Your task to perform on an android device: View the shopping cart on costco.com. Search for razer nari on costco.com, select the first entry, add it to the cart, then select checkout. Image 0: 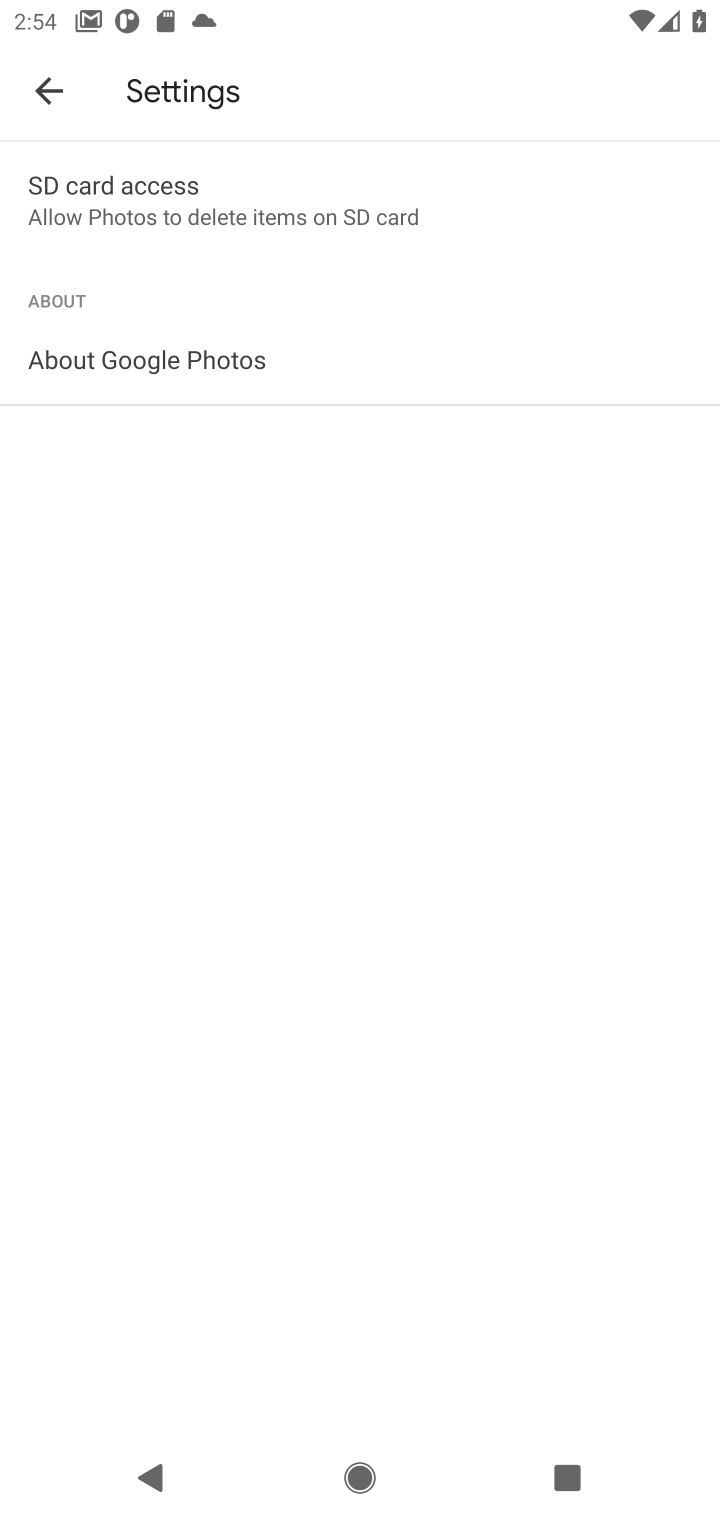
Step 0: press home button
Your task to perform on an android device: View the shopping cart on costco.com. Search for razer nari on costco.com, select the first entry, add it to the cart, then select checkout. Image 1: 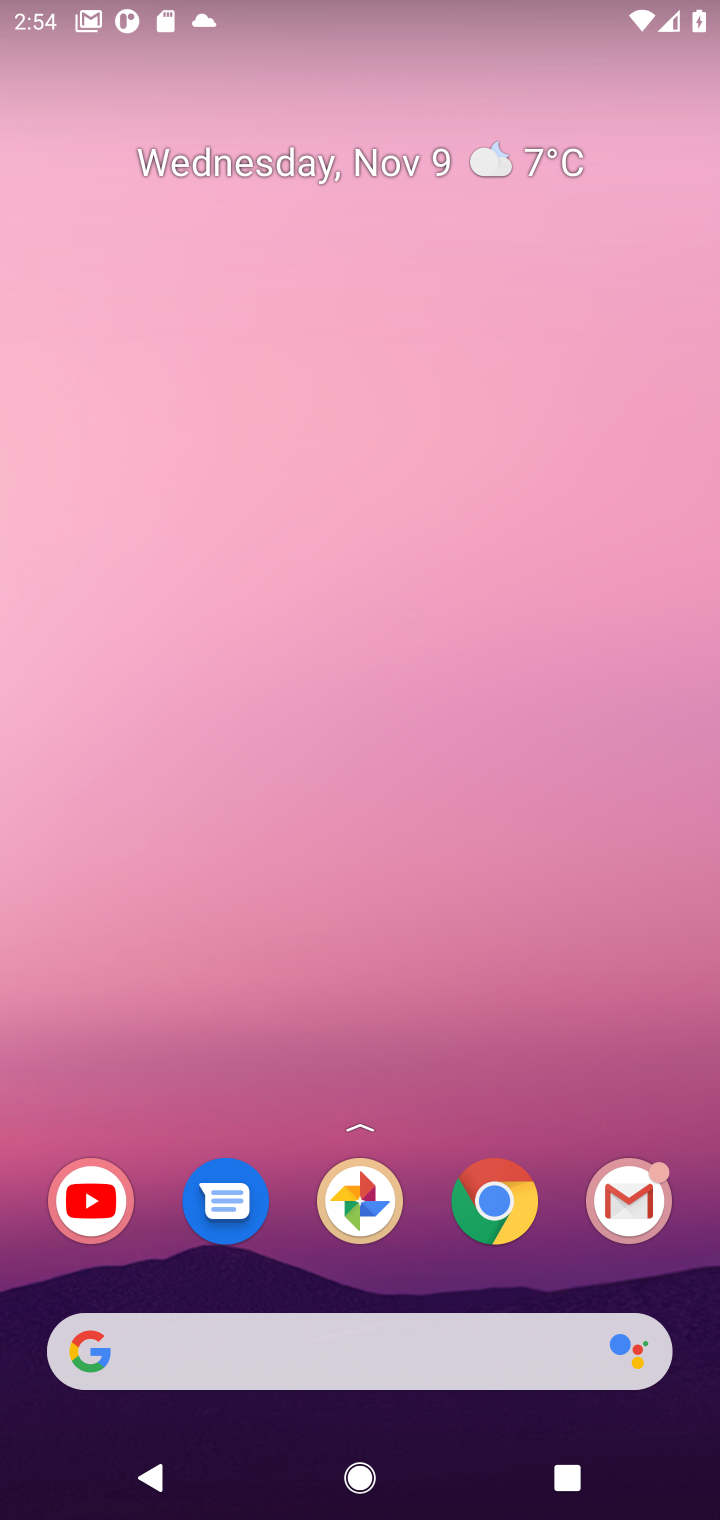
Step 1: click (344, 1354)
Your task to perform on an android device: View the shopping cart on costco.com. Search for razer nari on costco.com, select the first entry, add it to the cart, then select checkout. Image 2: 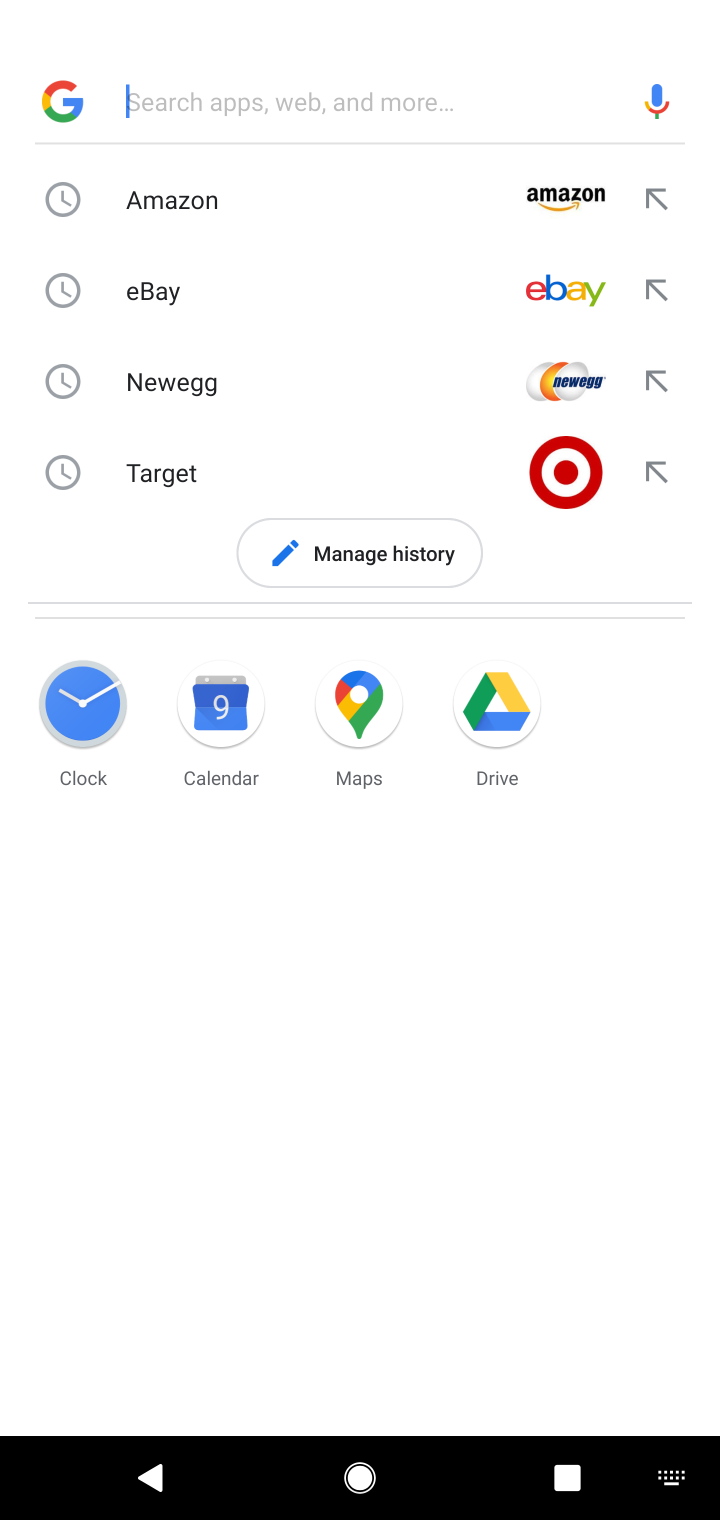
Step 2: type "costco.com"
Your task to perform on an android device: View the shopping cart on costco.com. Search for razer nari on costco.com, select the first entry, add it to the cart, then select checkout. Image 3: 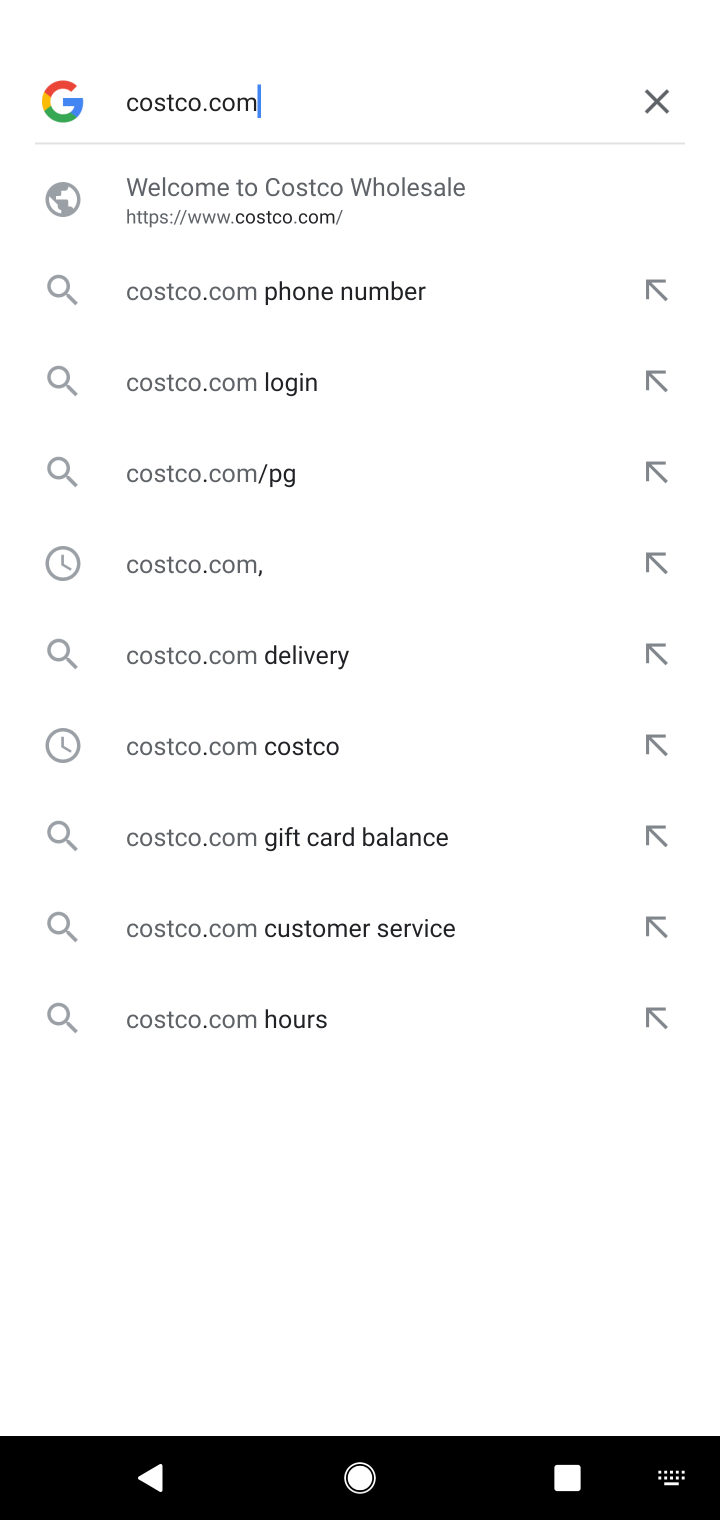
Step 3: click (289, 220)
Your task to perform on an android device: View the shopping cart on costco.com. Search for razer nari on costco.com, select the first entry, add it to the cart, then select checkout. Image 4: 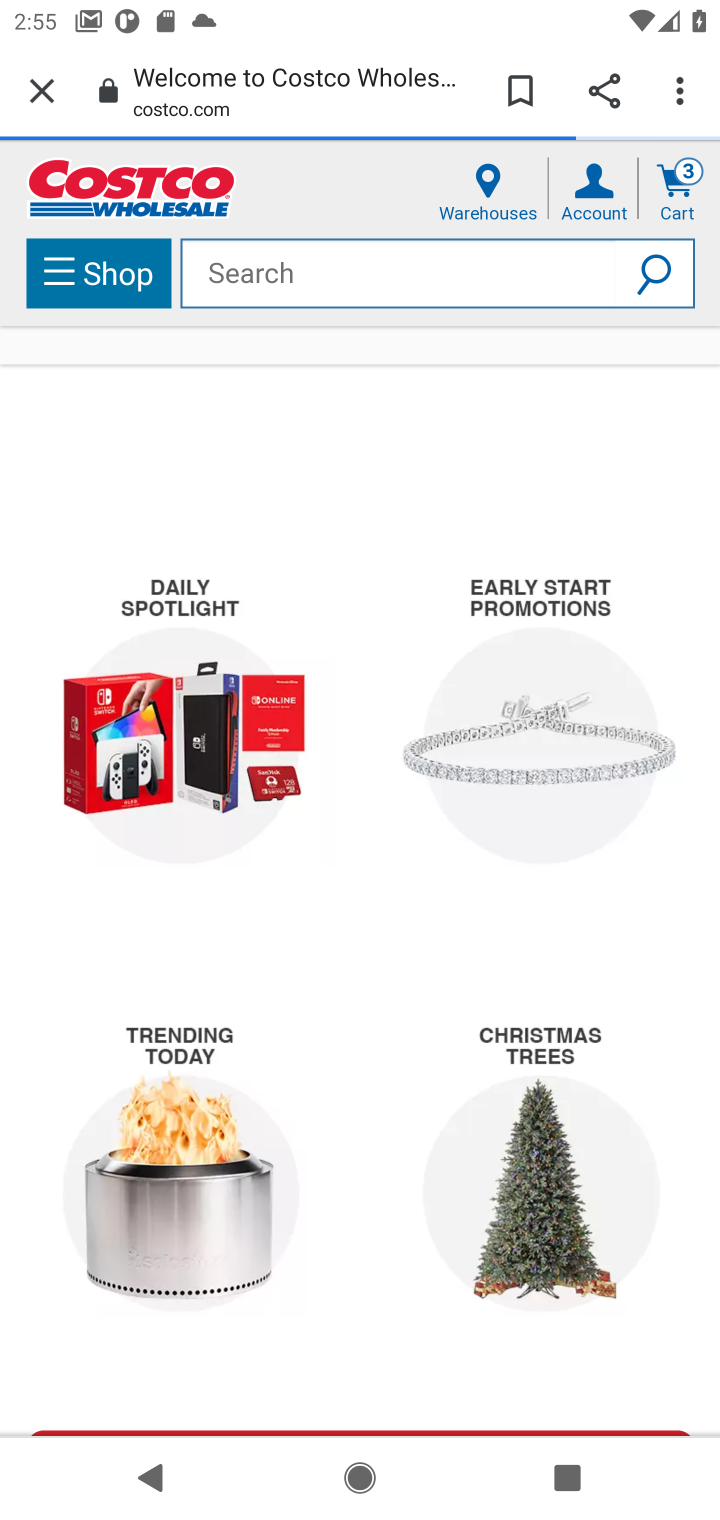
Step 4: click (357, 269)
Your task to perform on an android device: View the shopping cart on costco.com. Search for razer nari on costco.com, select the first entry, add it to the cart, then select checkout. Image 5: 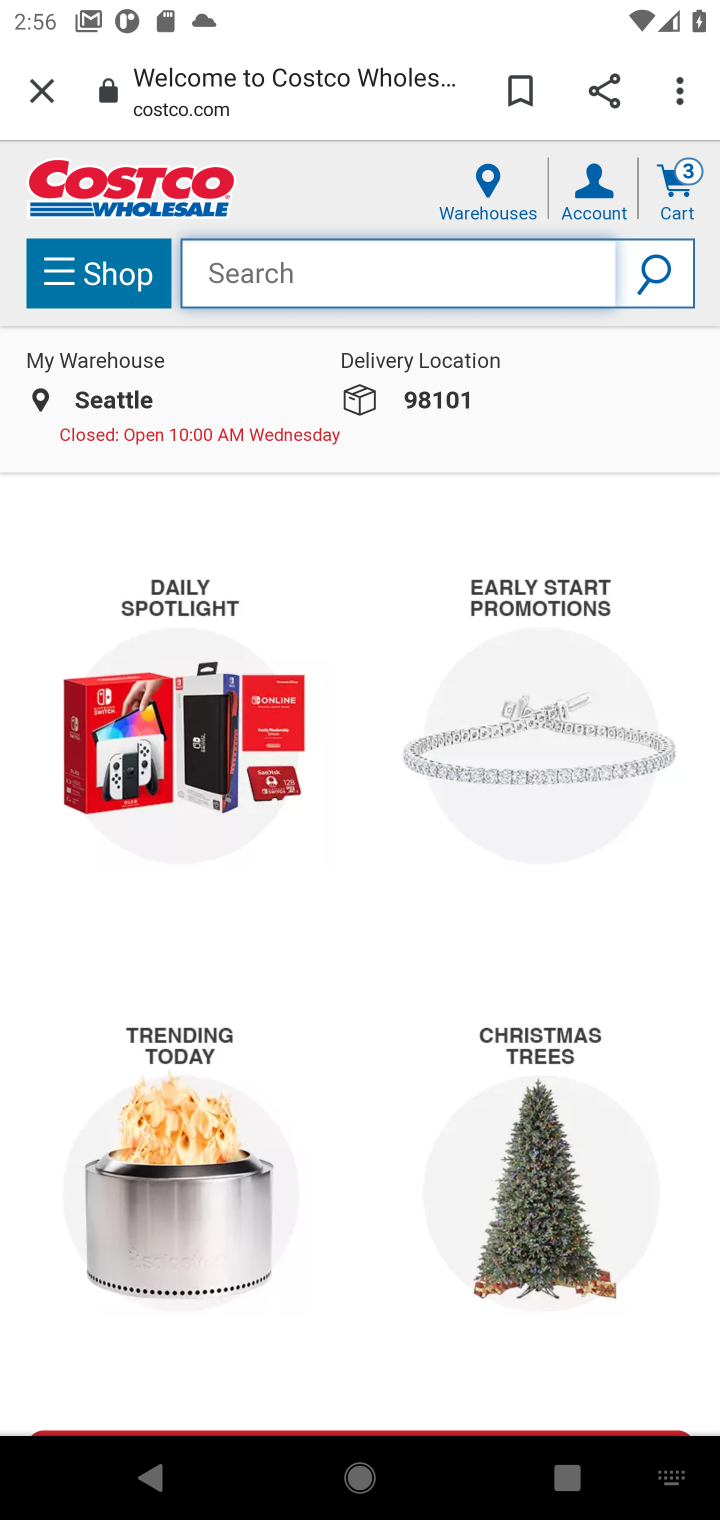
Step 5: type "razer nari "
Your task to perform on an android device: View the shopping cart on costco.com. Search for razer nari on costco.com, select the first entry, add it to the cart, then select checkout. Image 6: 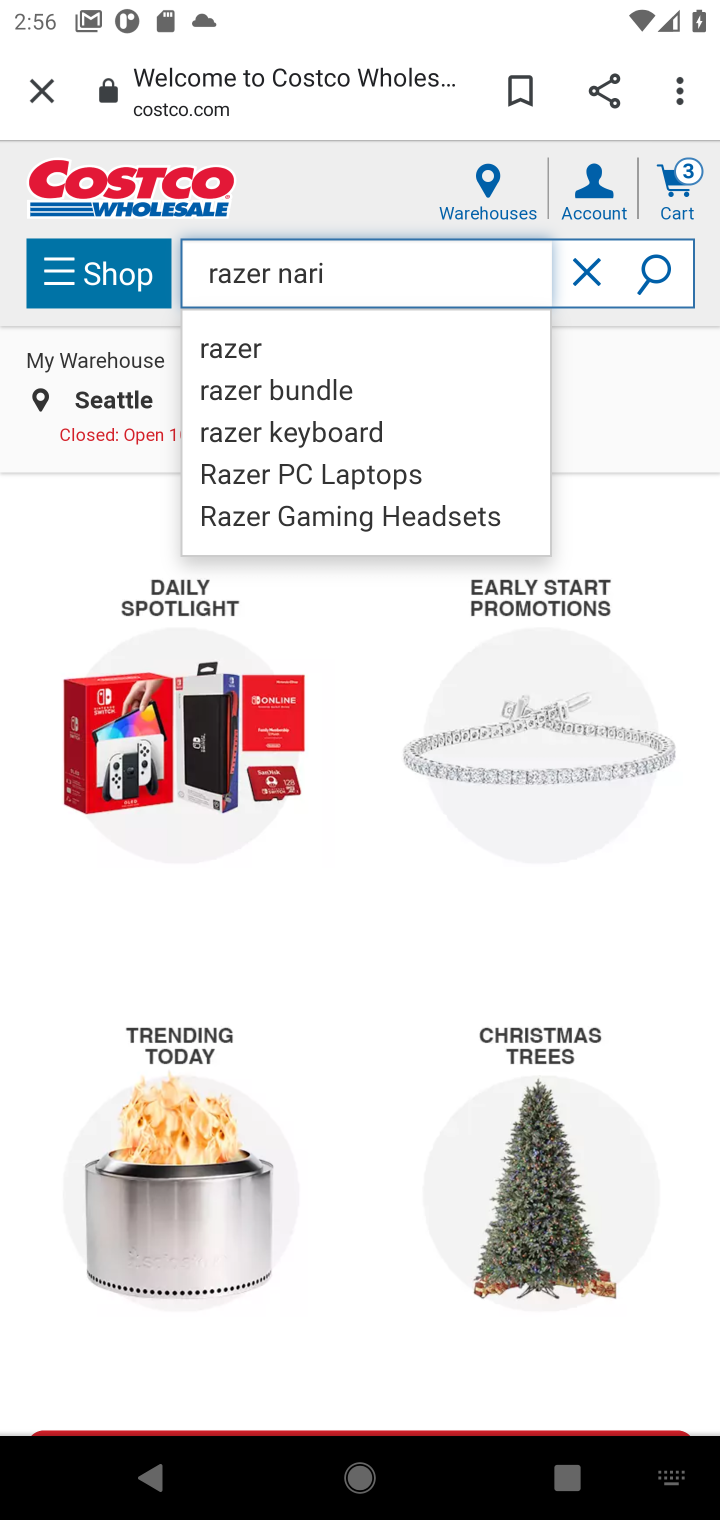
Step 6: click (223, 346)
Your task to perform on an android device: View the shopping cart on costco.com. Search for razer nari on costco.com, select the first entry, add it to the cart, then select checkout. Image 7: 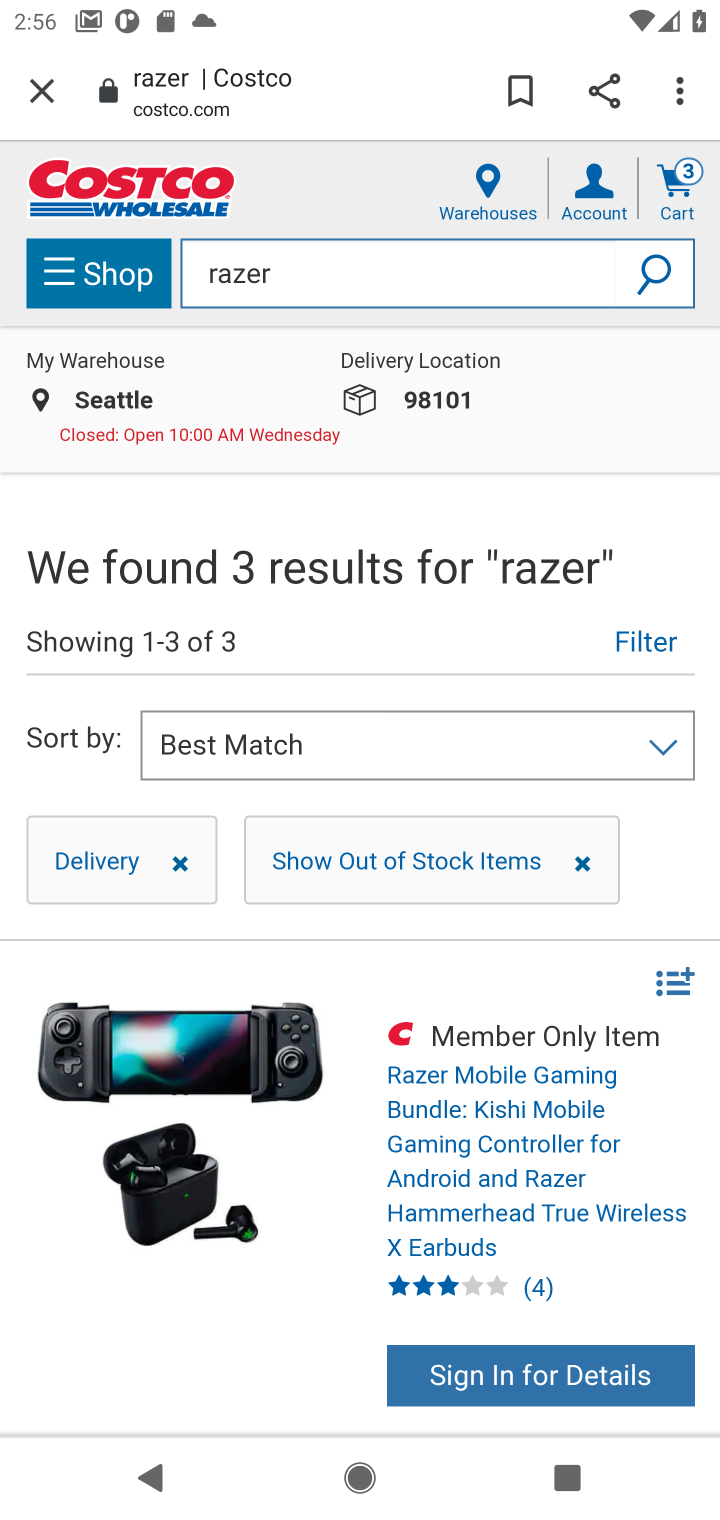
Step 7: drag from (219, 1200) to (255, 913)
Your task to perform on an android device: View the shopping cart on costco.com. Search for razer nari on costco.com, select the first entry, add it to the cart, then select checkout. Image 8: 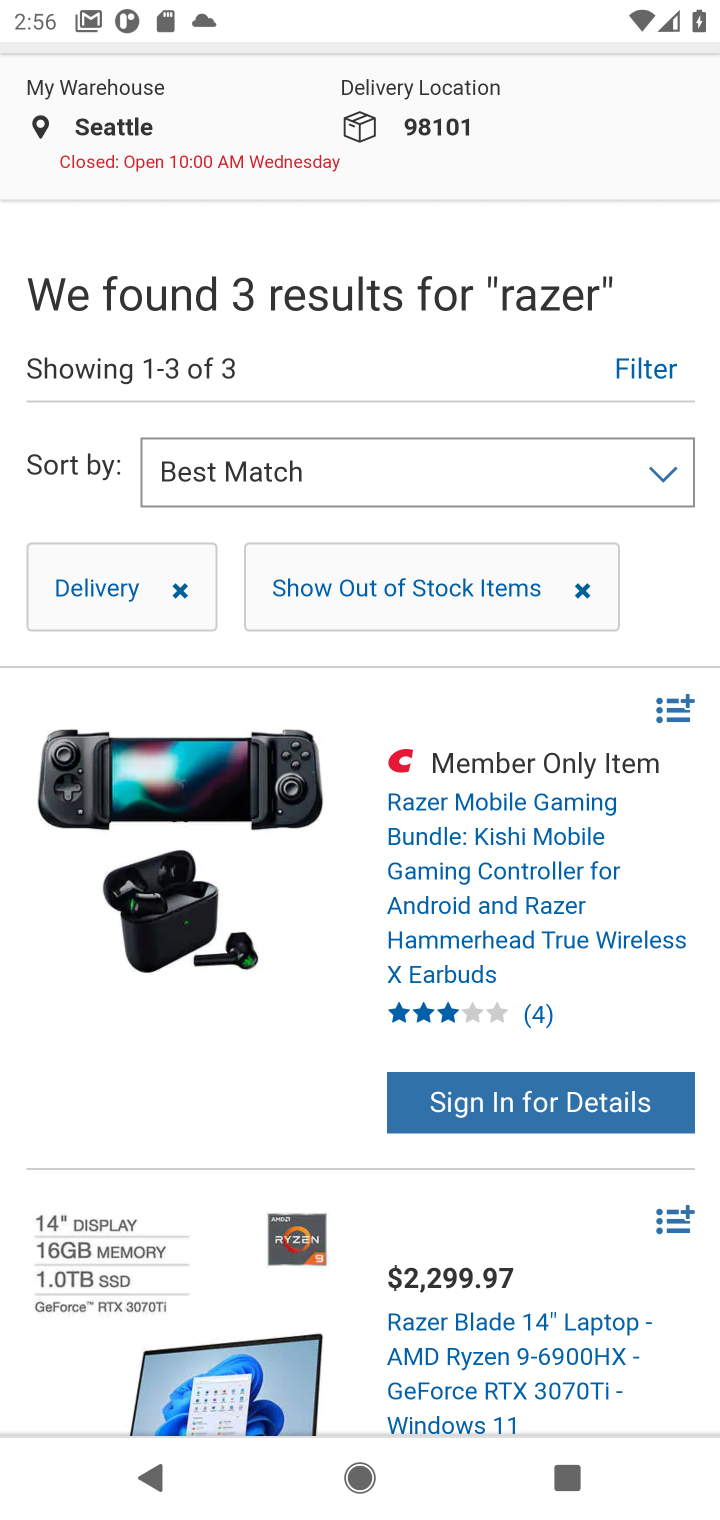
Step 8: drag from (188, 975) to (188, 846)
Your task to perform on an android device: View the shopping cart on costco.com. Search for razer nari on costco.com, select the first entry, add it to the cart, then select checkout. Image 9: 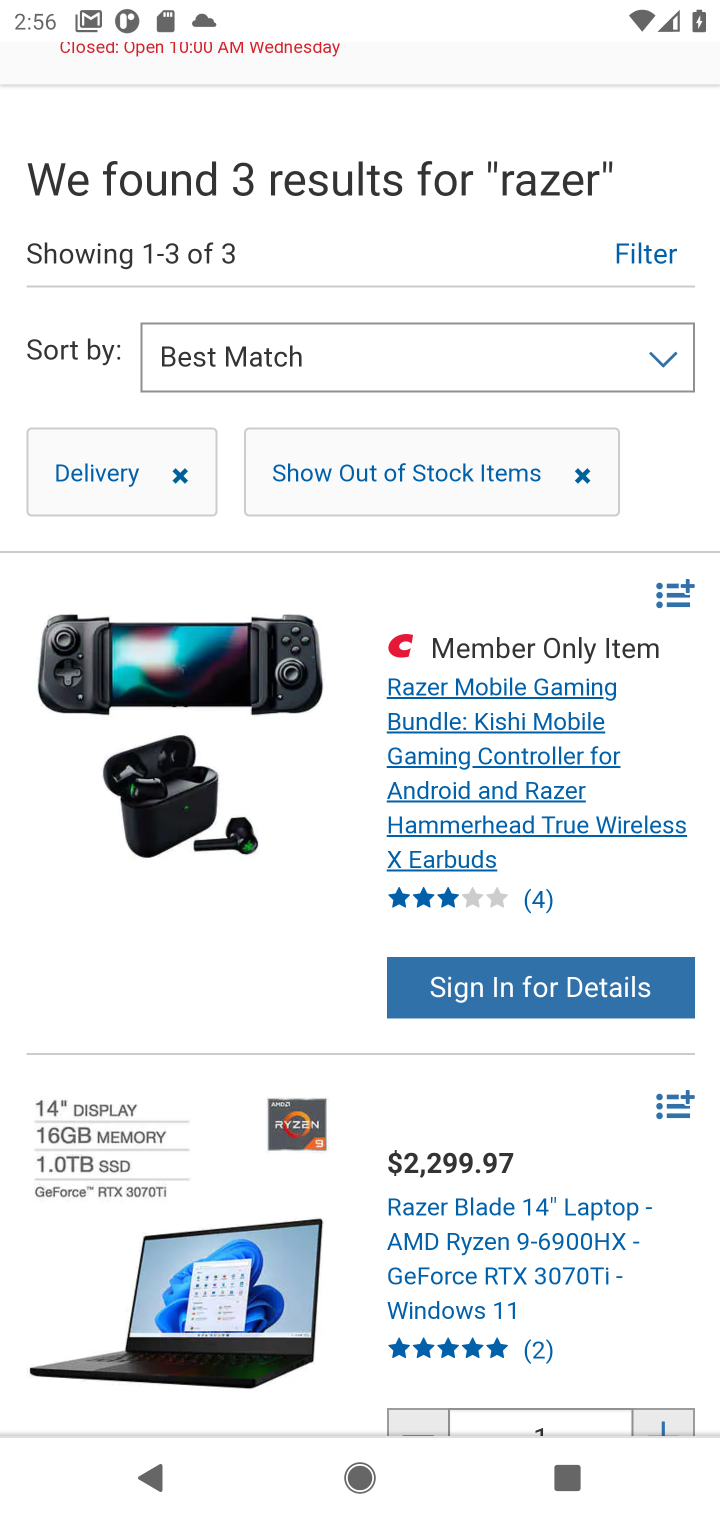
Step 9: drag from (205, 930) to (205, 738)
Your task to perform on an android device: View the shopping cart on costco.com. Search for razer nari on costco.com, select the first entry, add it to the cart, then select checkout. Image 10: 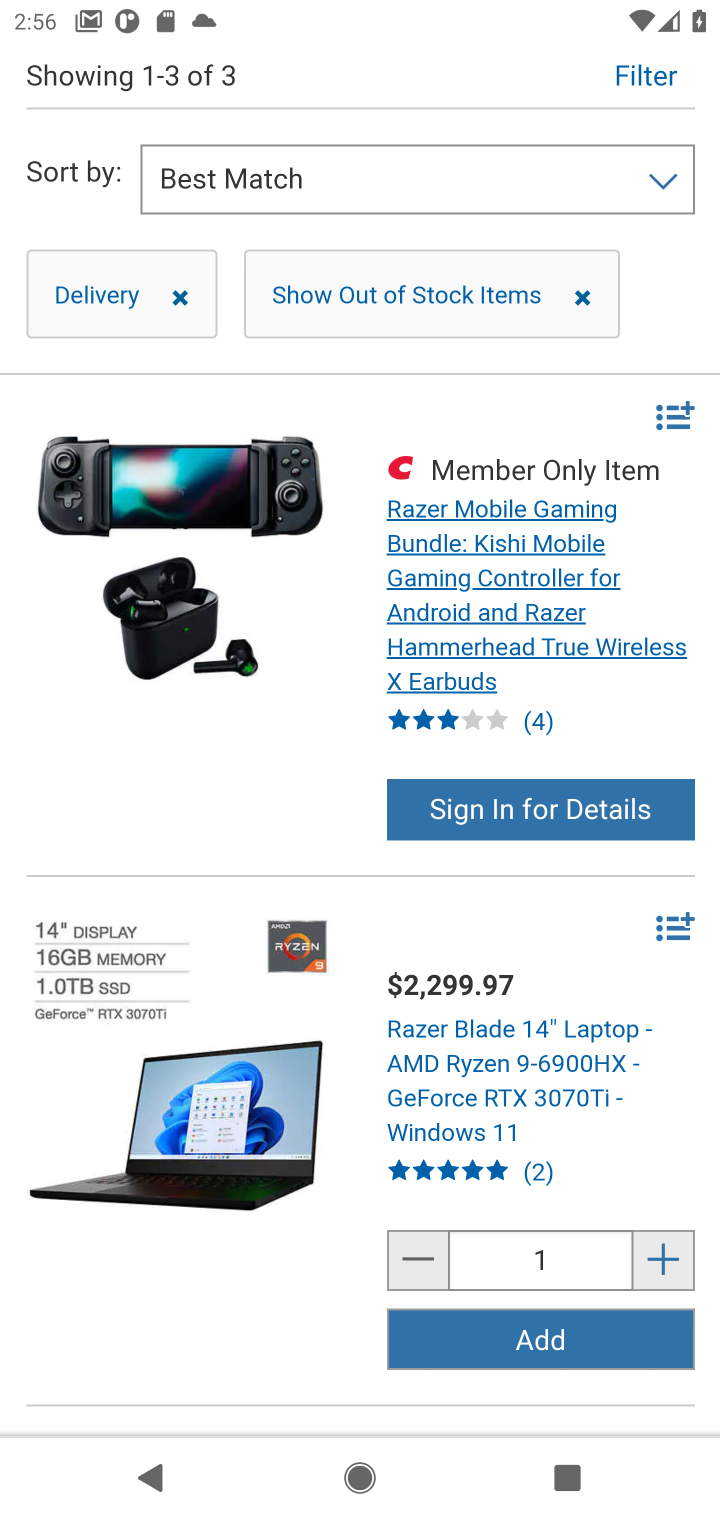
Step 10: click (546, 1346)
Your task to perform on an android device: View the shopping cart on costco.com. Search for razer nari on costco.com, select the first entry, add it to the cart, then select checkout. Image 11: 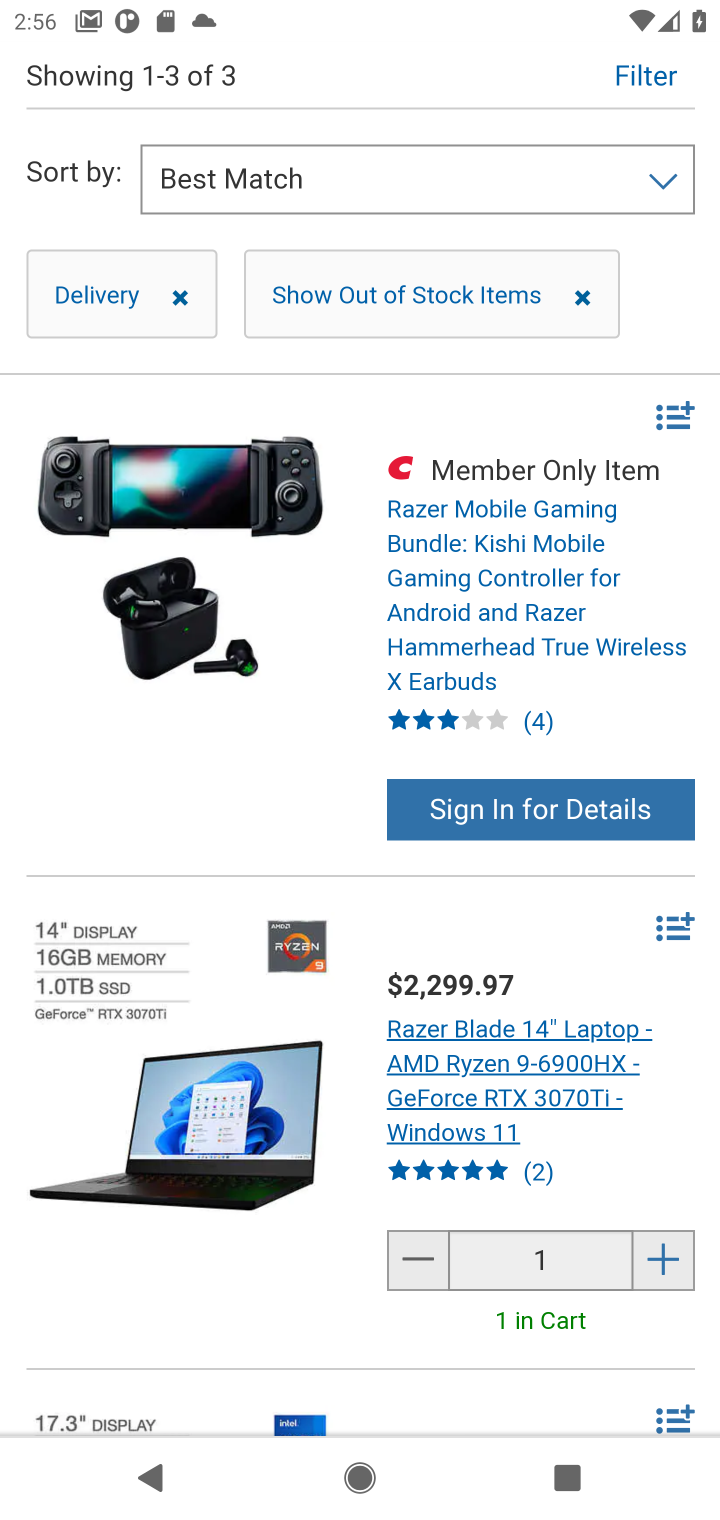
Step 11: task complete